Your task to perform on an android device: Open sound settings Image 0: 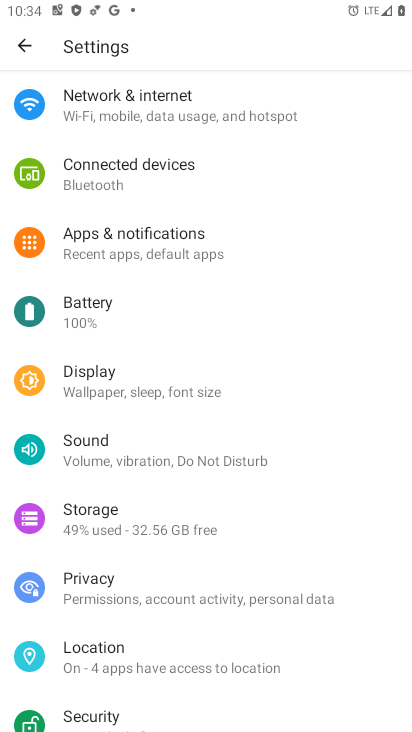
Step 0: click (76, 440)
Your task to perform on an android device: Open sound settings Image 1: 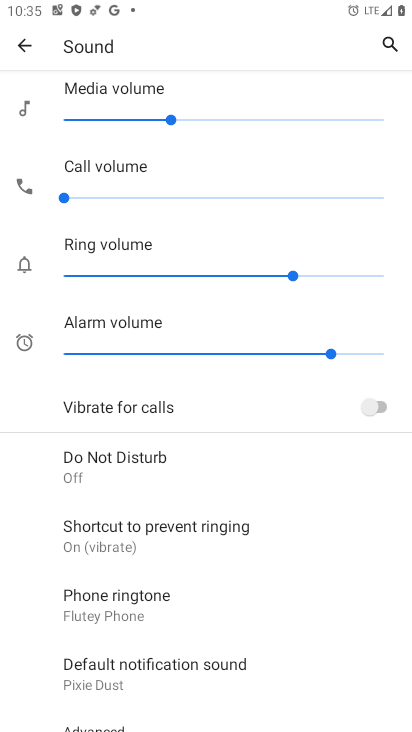
Step 1: task complete